Your task to perform on an android device: turn smart compose on in the gmail app Image 0: 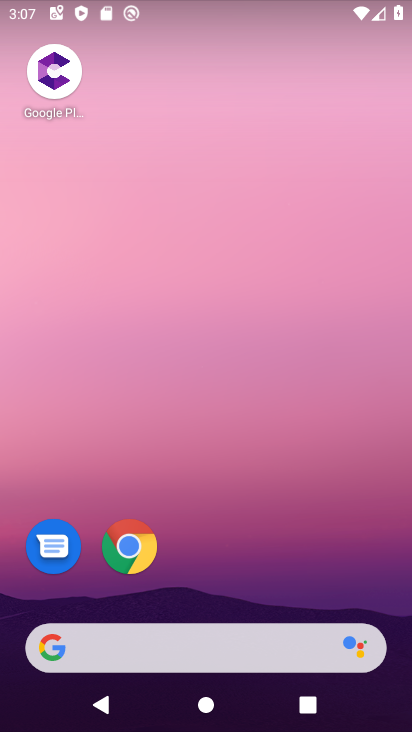
Step 0: drag from (314, 396) to (265, 83)
Your task to perform on an android device: turn smart compose on in the gmail app Image 1: 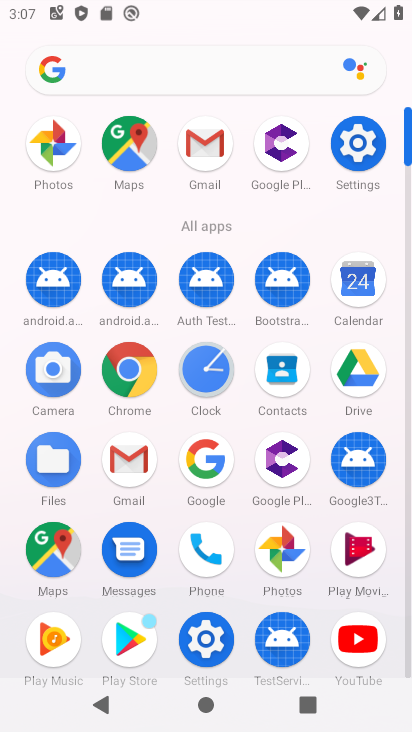
Step 1: click (206, 147)
Your task to perform on an android device: turn smart compose on in the gmail app Image 2: 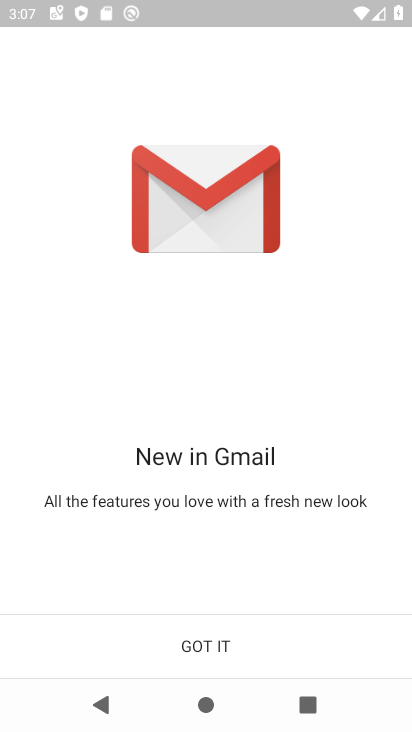
Step 2: click (255, 635)
Your task to perform on an android device: turn smart compose on in the gmail app Image 3: 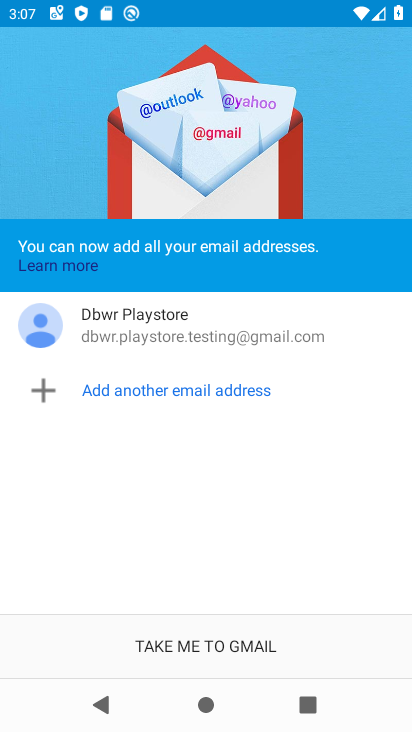
Step 3: click (254, 636)
Your task to perform on an android device: turn smart compose on in the gmail app Image 4: 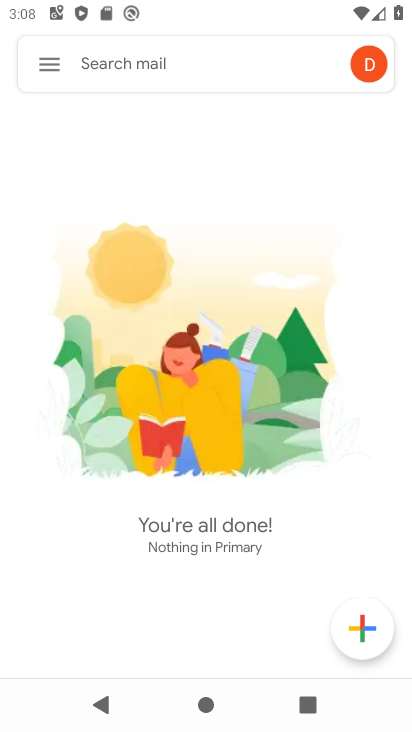
Step 4: click (51, 66)
Your task to perform on an android device: turn smart compose on in the gmail app Image 5: 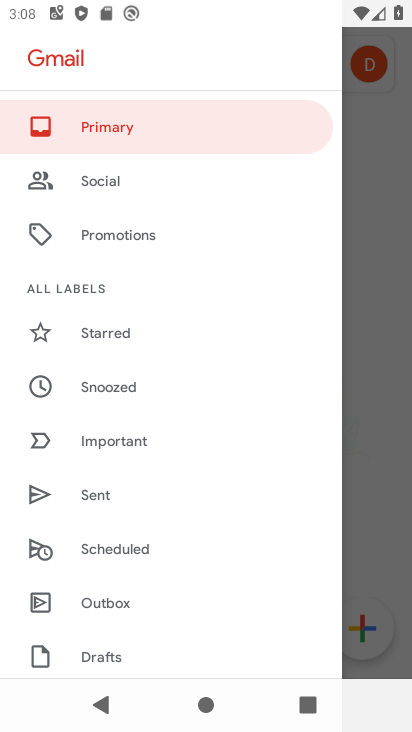
Step 5: drag from (192, 605) to (236, 28)
Your task to perform on an android device: turn smart compose on in the gmail app Image 6: 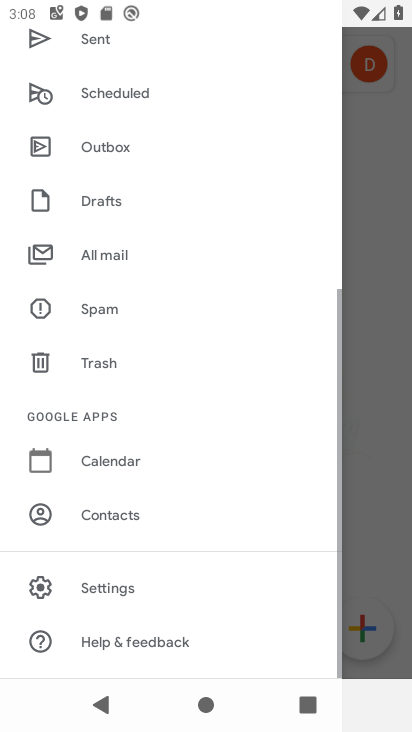
Step 6: click (195, 584)
Your task to perform on an android device: turn smart compose on in the gmail app Image 7: 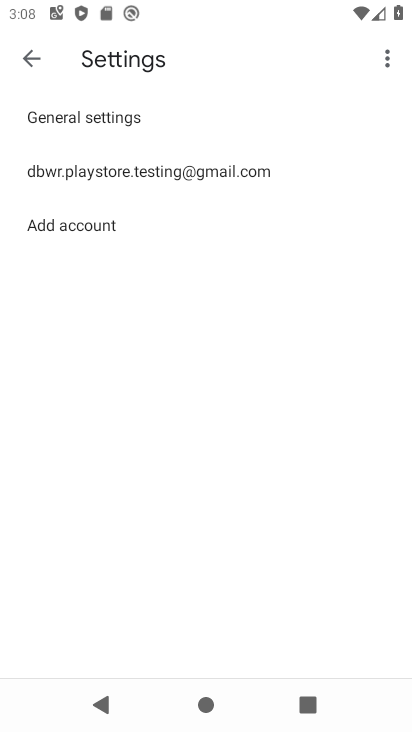
Step 7: click (175, 166)
Your task to perform on an android device: turn smart compose on in the gmail app Image 8: 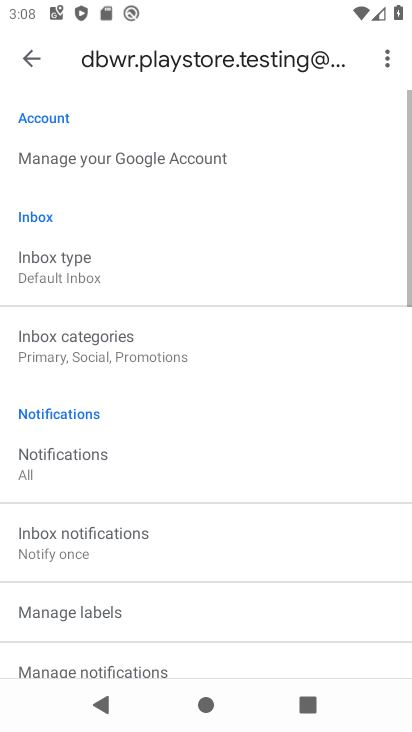
Step 8: task complete